Your task to perform on an android device: toggle priority inbox in the gmail app Image 0: 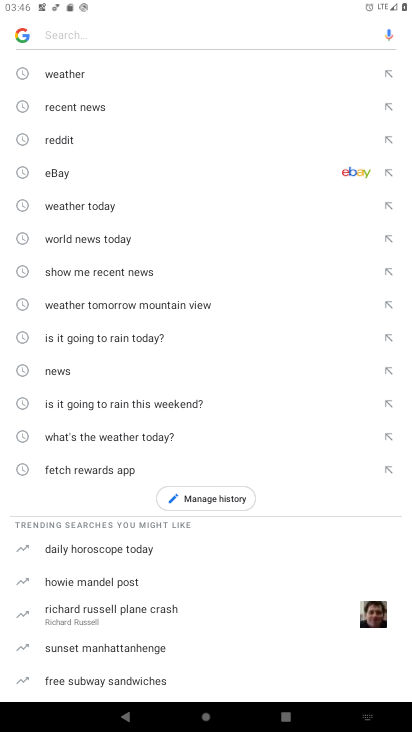
Step 0: press home button
Your task to perform on an android device: toggle priority inbox in the gmail app Image 1: 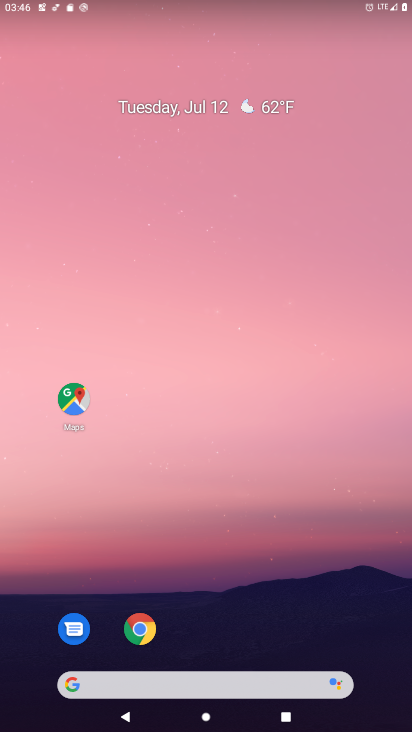
Step 1: drag from (208, 676) to (180, 82)
Your task to perform on an android device: toggle priority inbox in the gmail app Image 2: 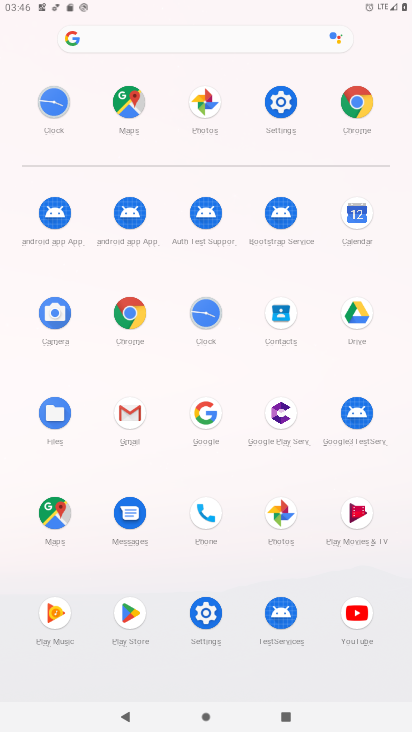
Step 2: click (119, 420)
Your task to perform on an android device: toggle priority inbox in the gmail app Image 3: 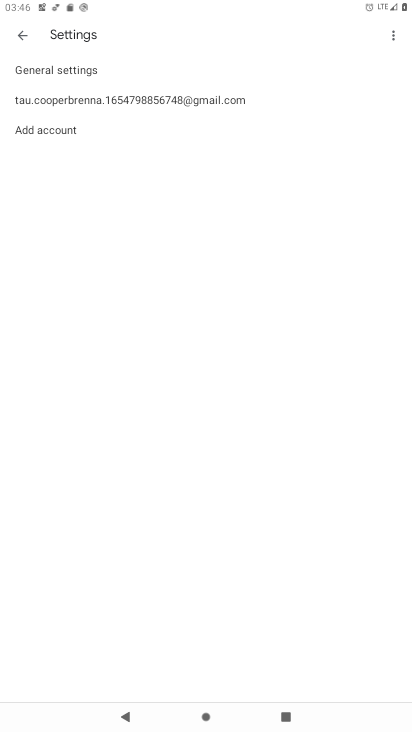
Step 3: click (25, 47)
Your task to perform on an android device: toggle priority inbox in the gmail app Image 4: 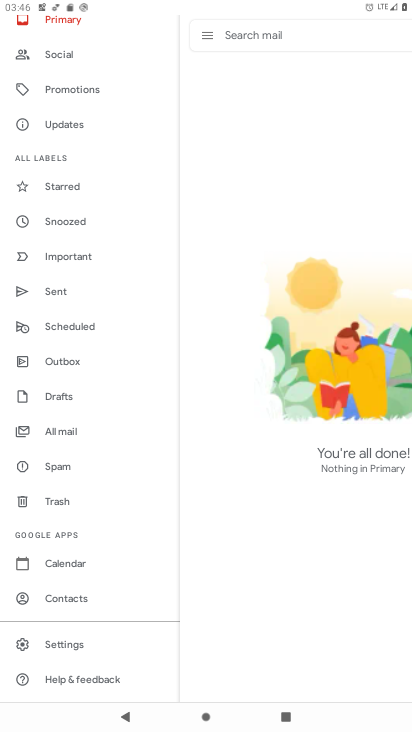
Step 4: click (71, 639)
Your task to perform on an android device: toggle priority inbox in the gmail app Image 5: 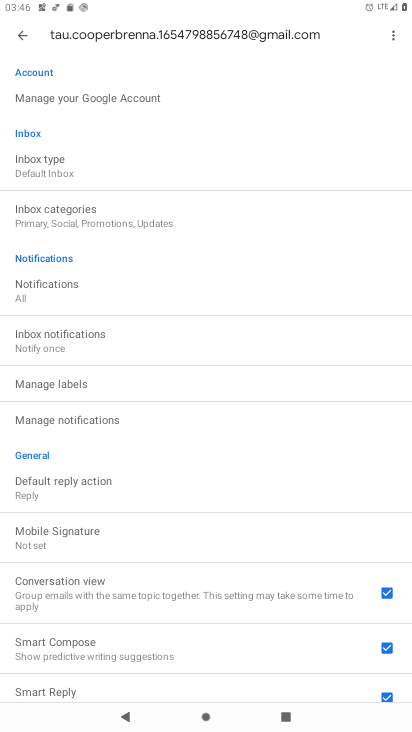
Step 5: click (44, 186)
Your task to perform on an android device: toggle priority inbox in the gmail app Image 6: 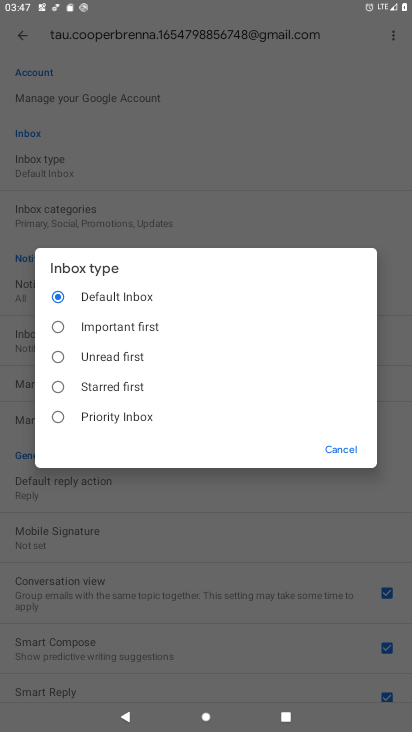
Step 6: click (126, 413)
Your task to perform on an android device: toggle priority inbox in the gmail app Image 7: 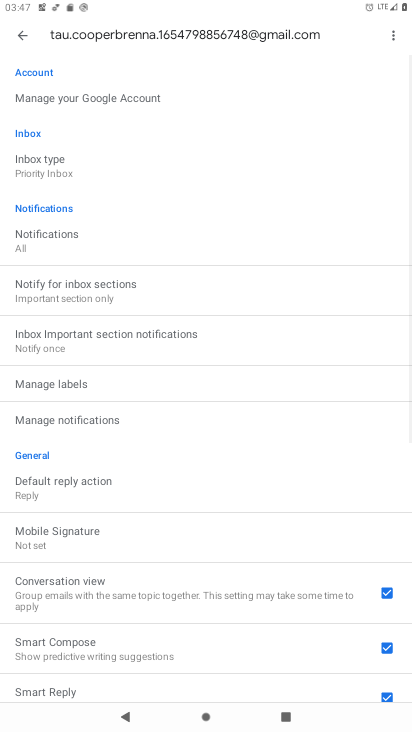
Step 7: task complete